Your task to perform on an android device: Go to network settings Image 0: 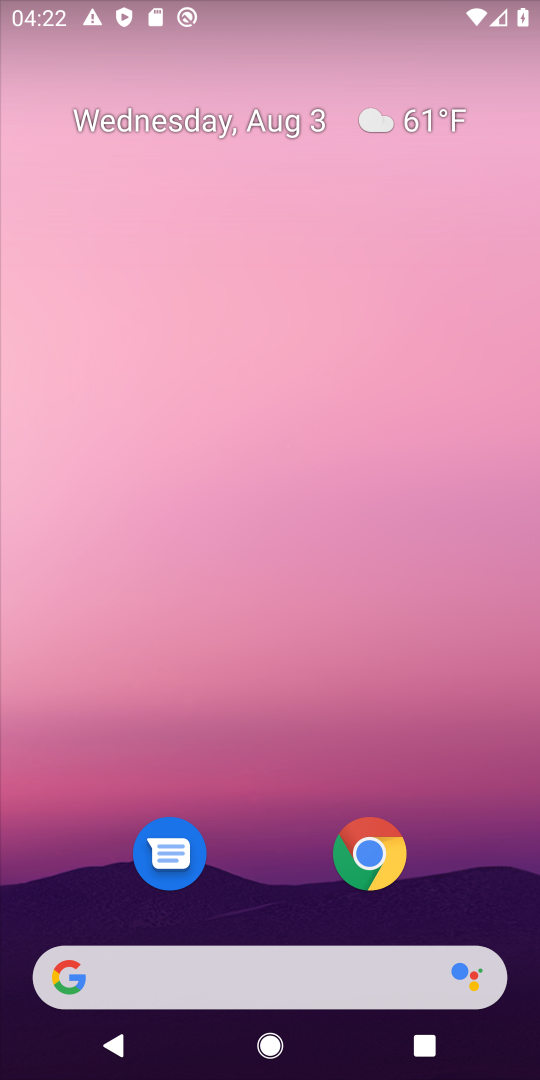
Step 0: drag from (266, 769) to (263, 212)
Your task to perform on an android device: Go to network settings Image 1: 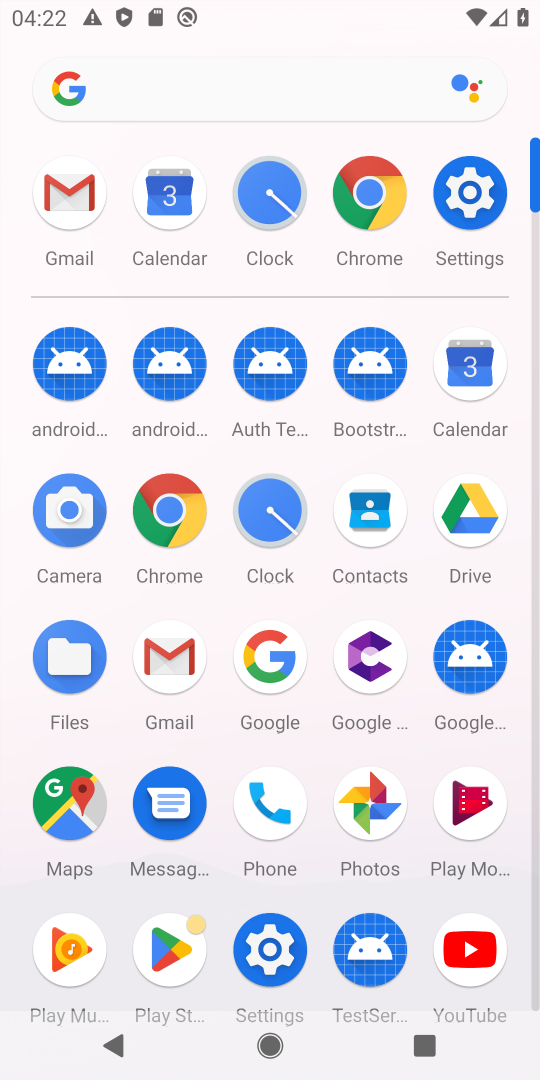
Step 1: click (473, 179)
Your task to perform on an android device: Go to network settings Image 2: 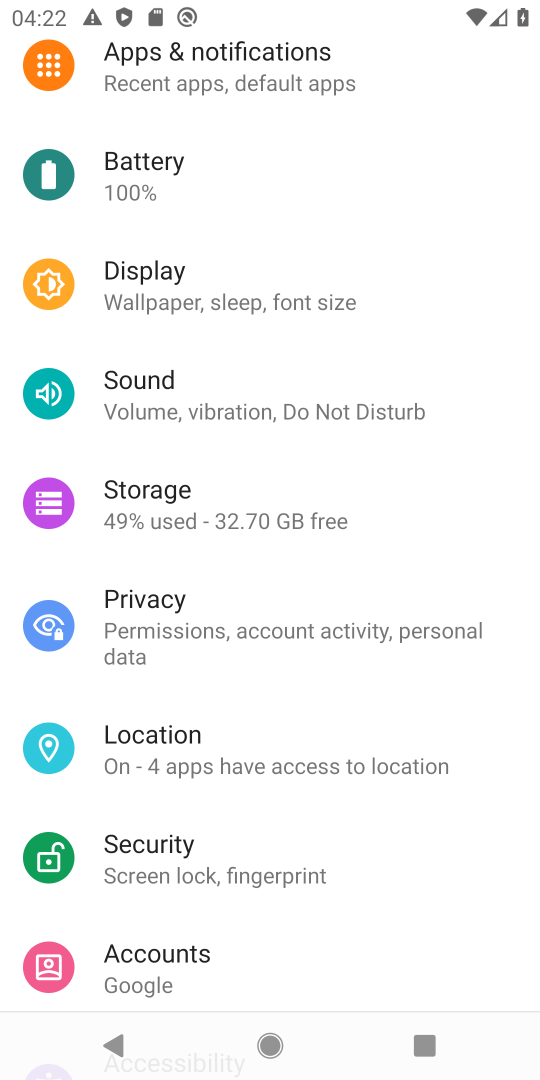
Step 2: drag from (236, 785) to (239, 865)
Your task to perform on an android device: Go to network settings Image 3: 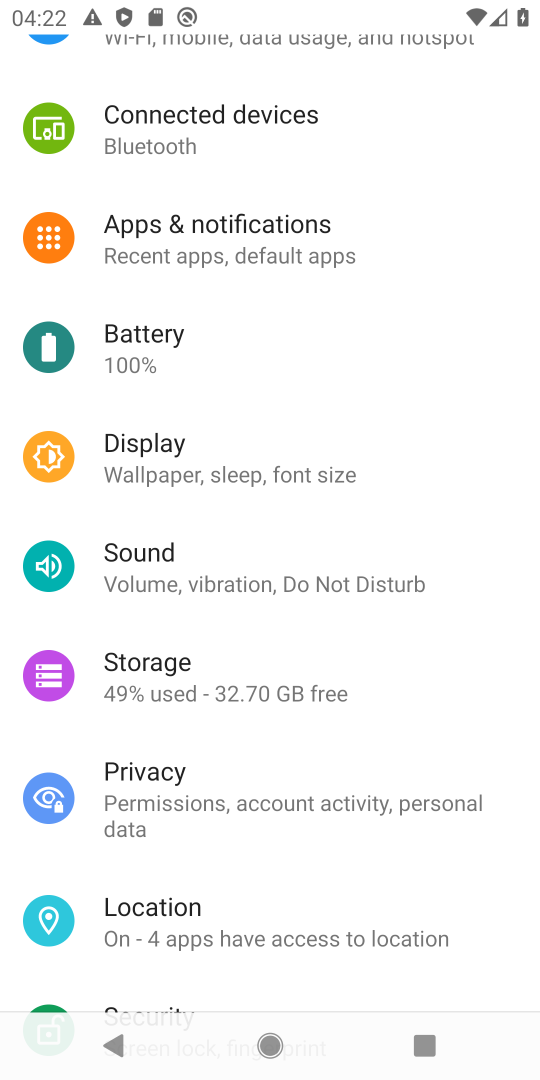
Step 3: drag from (212, 215) to (215, 795)
Your task to perform on an android device: Go to network settings Image 4: 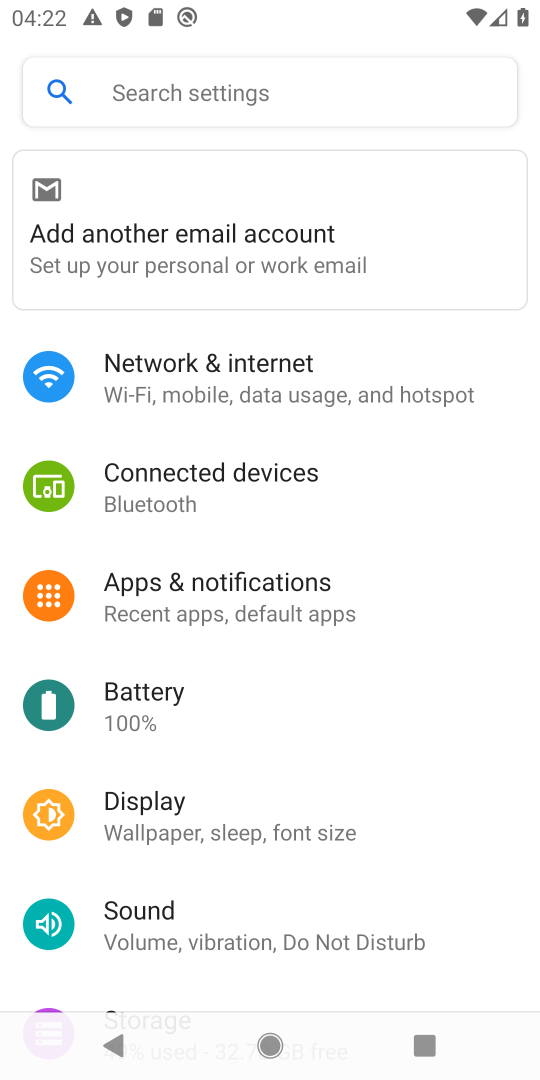
Step 4: click (212, 381)
Your task to perform on an android device: Go to network settings Image 5: 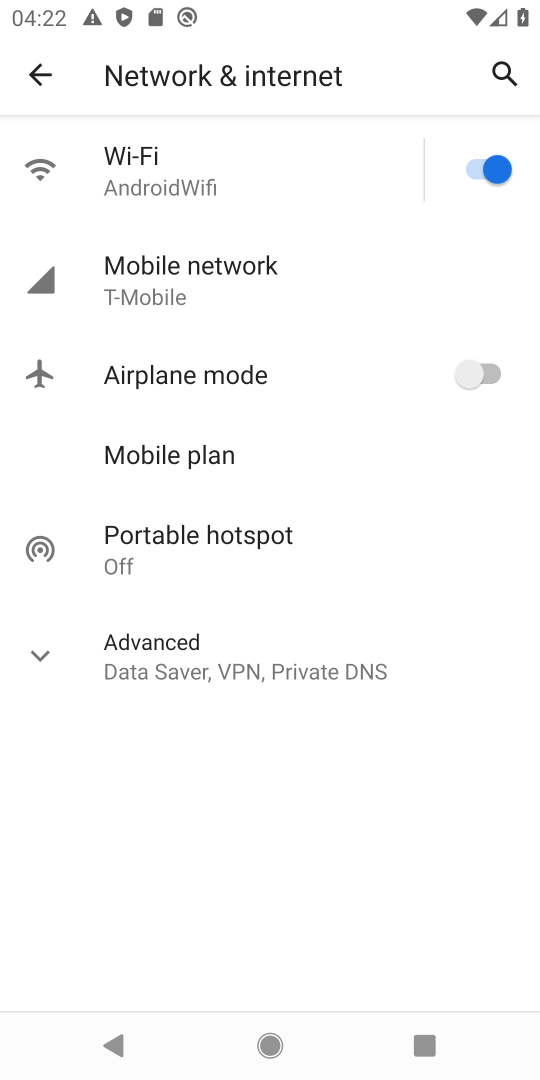
Step 5: click (155, 278)
Your task to perform on an android device: Go to network settings Image 6: 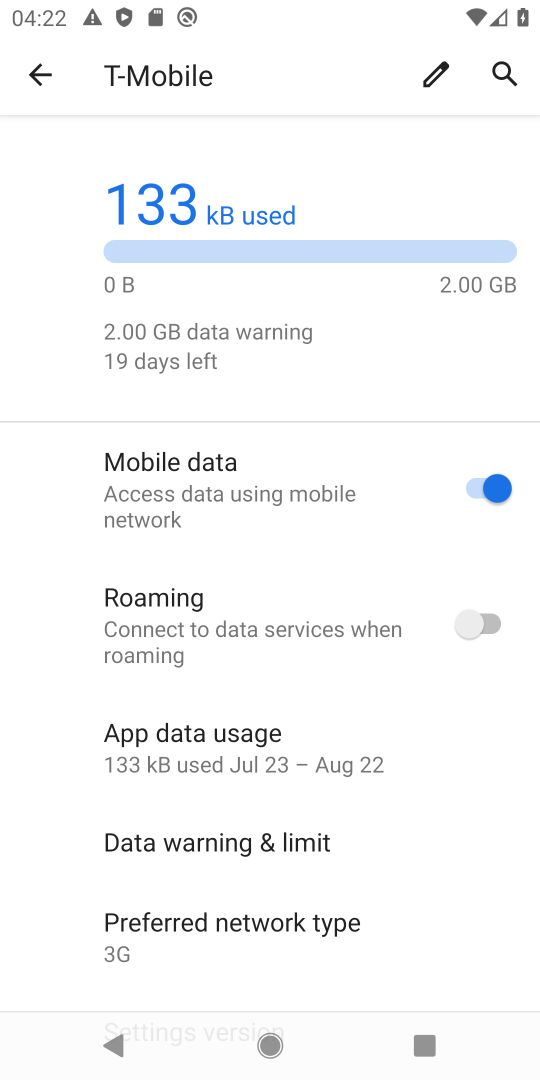
Step 6: task complete